Your task to perform on an android device: Go to battery settings Image 0: 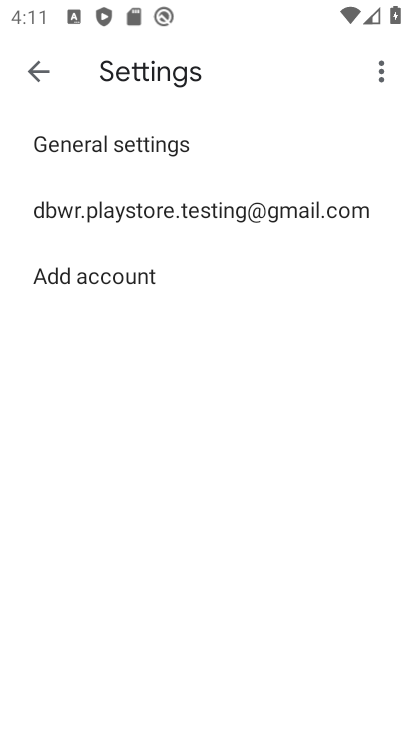
Step 0: press home button
Your task to perform on an android device: Go to battery settings Image 1: 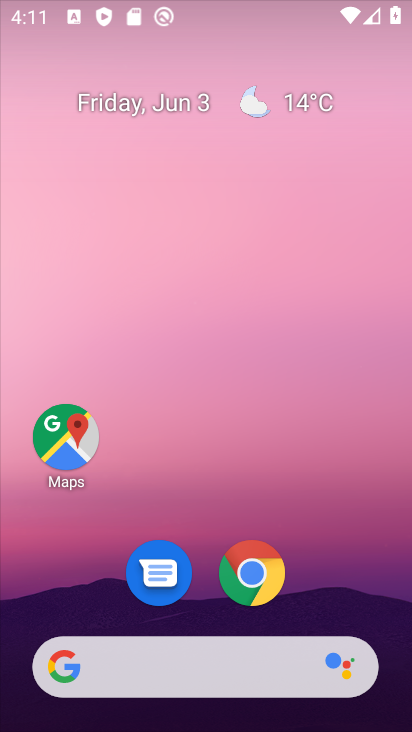
Step 1: drag from (240, 706) to (269, 4)
Your task to perform on an android device: Go to battery settings Image 2: 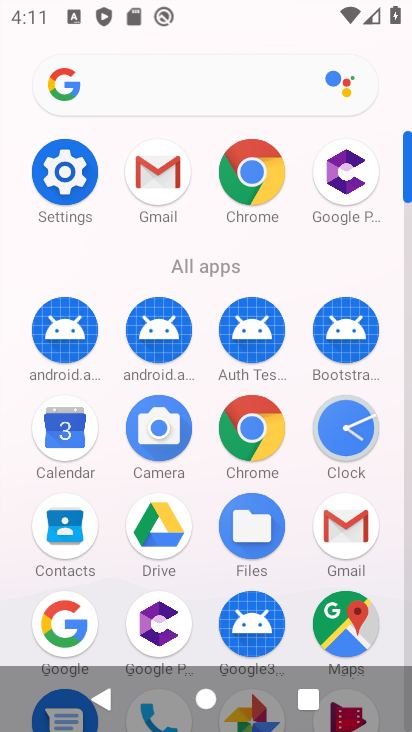
Step 2: click (80, 176)
Your task to perform on an android device: Go to battery settings Image 3: 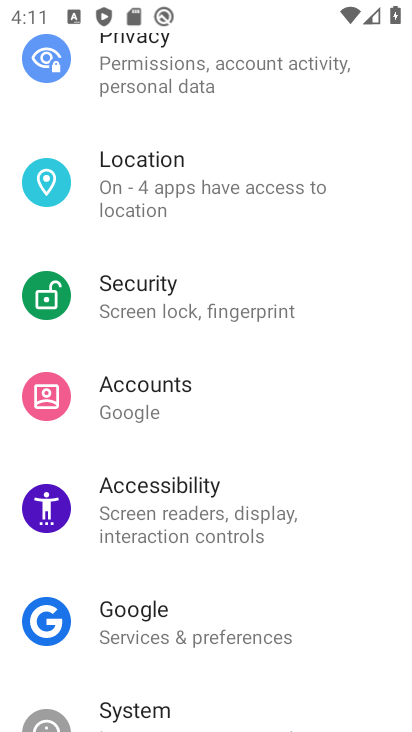
Step 3: drag from (236, 197) to (273, 636)
Your task to perform on an android device: Go to battery settings Image 4: 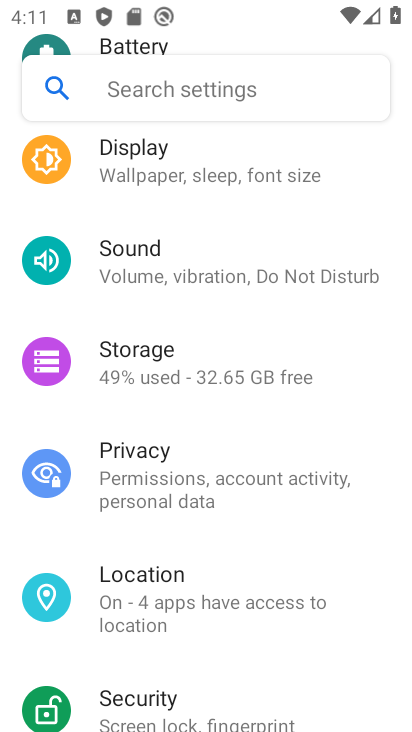
Step 4: drag from (189, 227) to (209, 722)
Your task to perform on an android device: Go to battery settings Image 5: 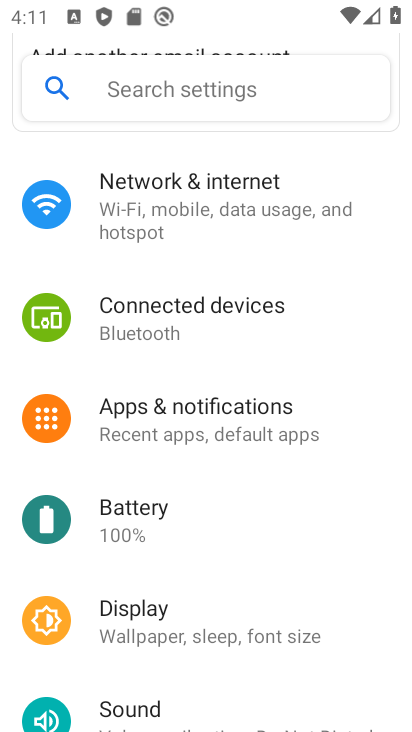
Step 5: click (164, 519)
Your task to perform on an android device: Go to battery settings Image 6: 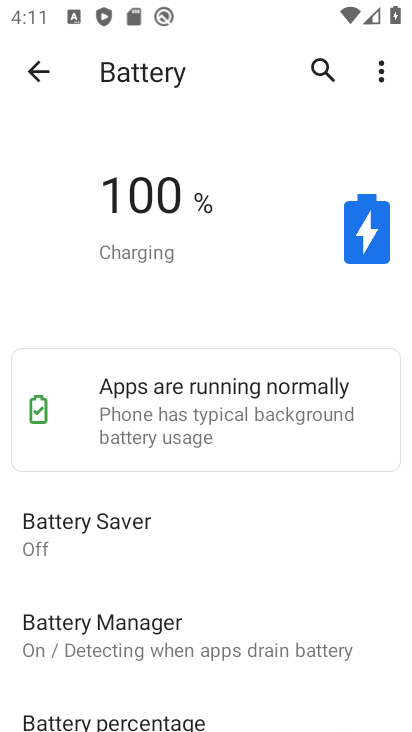
Step 6: task complete